Your task to perform on an android device: Play the last video I watched on Youtube Image 0: 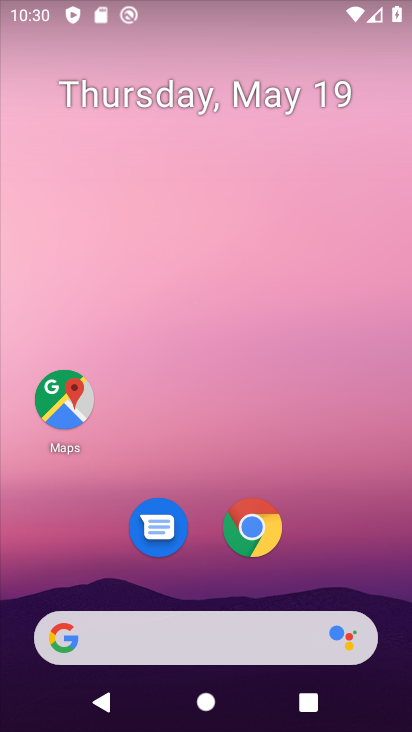
Step 0: drag from (220, 575) to (275, 141)
Your task to perform on an android device: Play the last video I watched on Youtube Image 1: 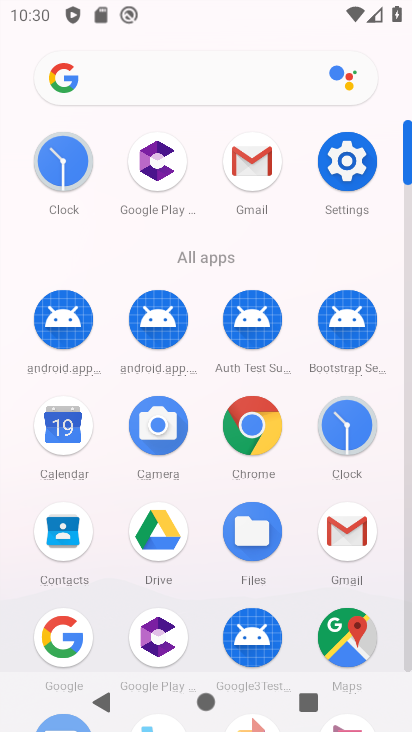
Step 1: drag from (183, 520) to (199, 179)
Your task to perform on an android device: Play the last video I watched on Youtube Image 2: 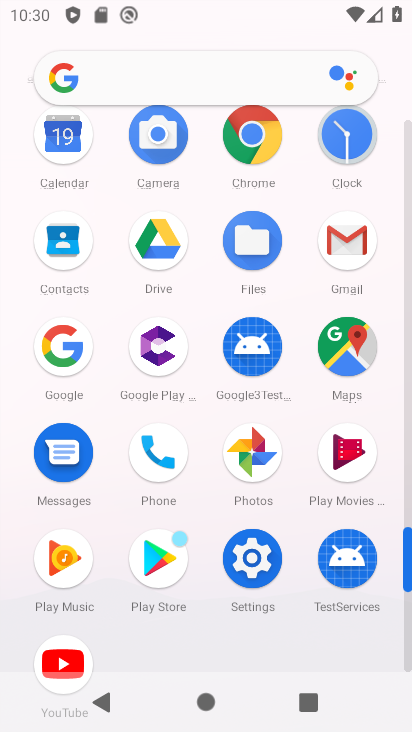
Step 2: click (47, 653)
Your task to perform on an android device: Play the last video I watched on Youtube Image 3: 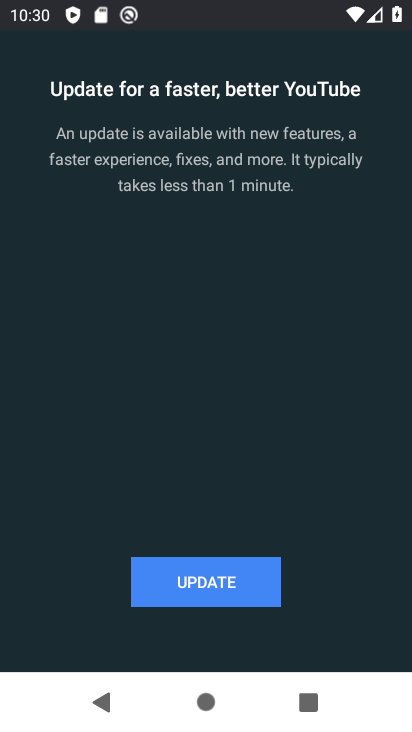
Step 3: click (175, 586)
Your task to perform on an android device: Play the last video I watched on Youtube Image 4: 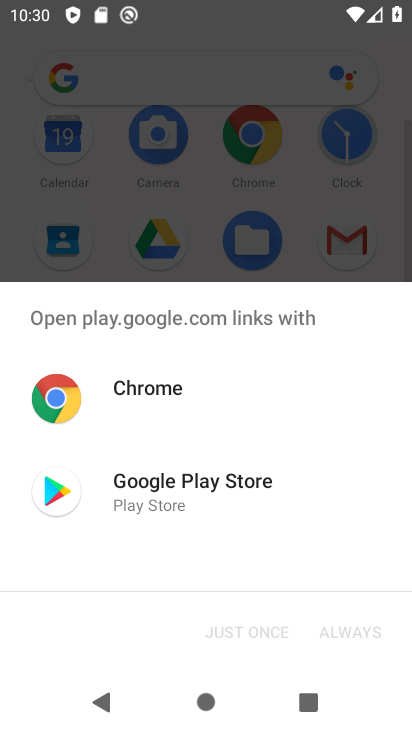
Step 4: drag from (151, 505) to (227, 505)
Your task to perform on an android device: Play the last video I watched on Youtube Image 5: 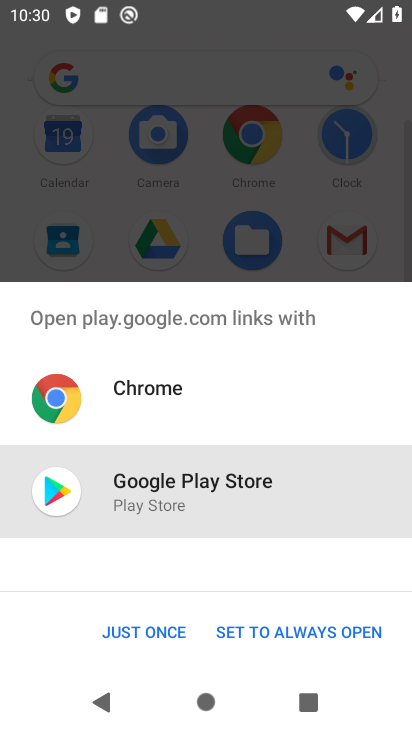
Step 5: click (126, 622)
Your task to perform on an android device: Play the last video I watched on Youtube Image 6: 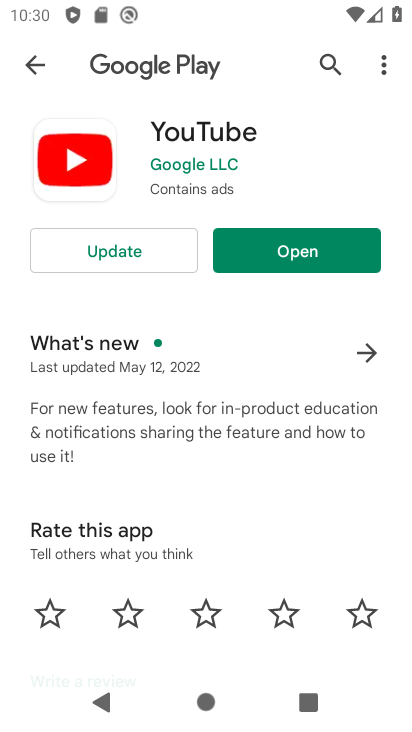
Step 6: click (136, 252)
Your task to perform on an android device: Play the last video I watched on Youtube Image 7: 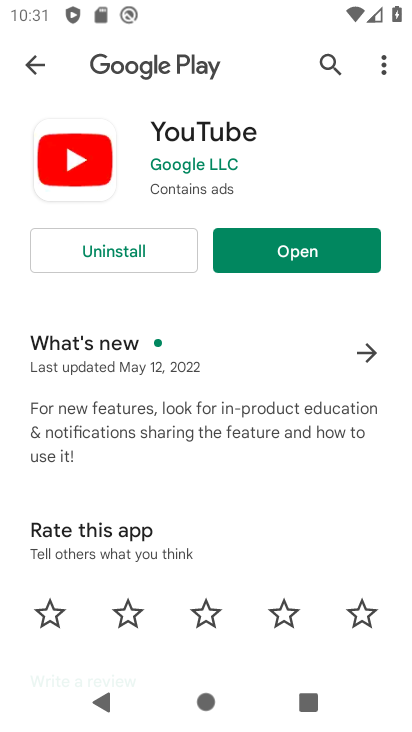
Step 7: click (256, 248)
Your task to perform on an android device: Play the last video I watched on Youtube Image 8: 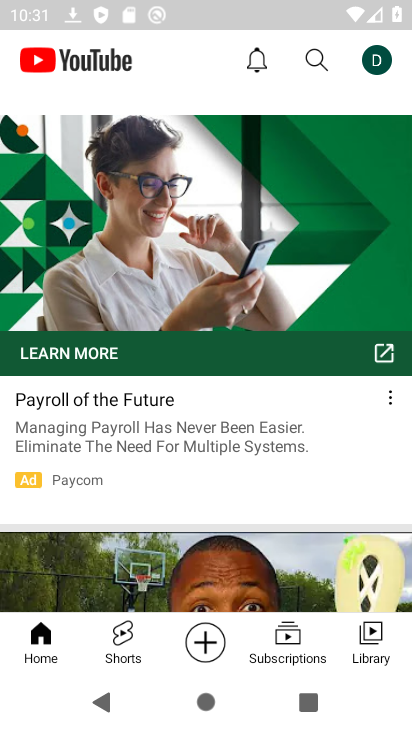
Step 8: click (361, 647)
Your task to perform on an android device: Play the last video I watched on Youtube Image 9: 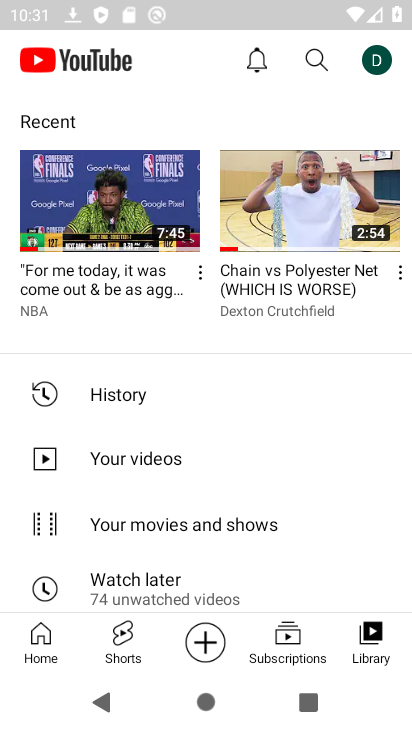
Step 9: click (136, 218)
Your task to perform on an android device: Play the last video I watched on Youtube Image 10: 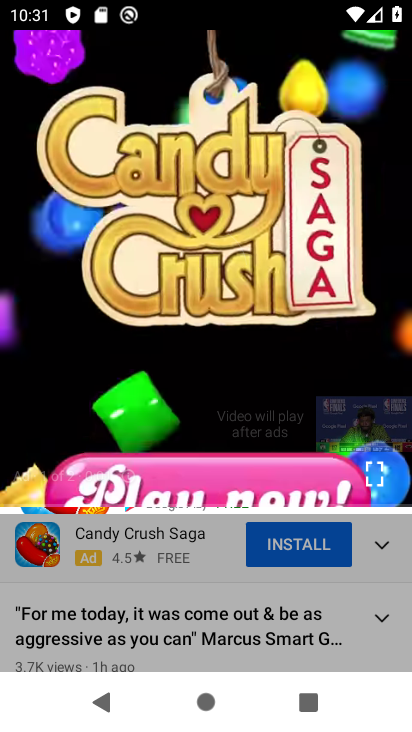
Step 10: task complete